Your task to perform on an android device: turn off location history Image 0: 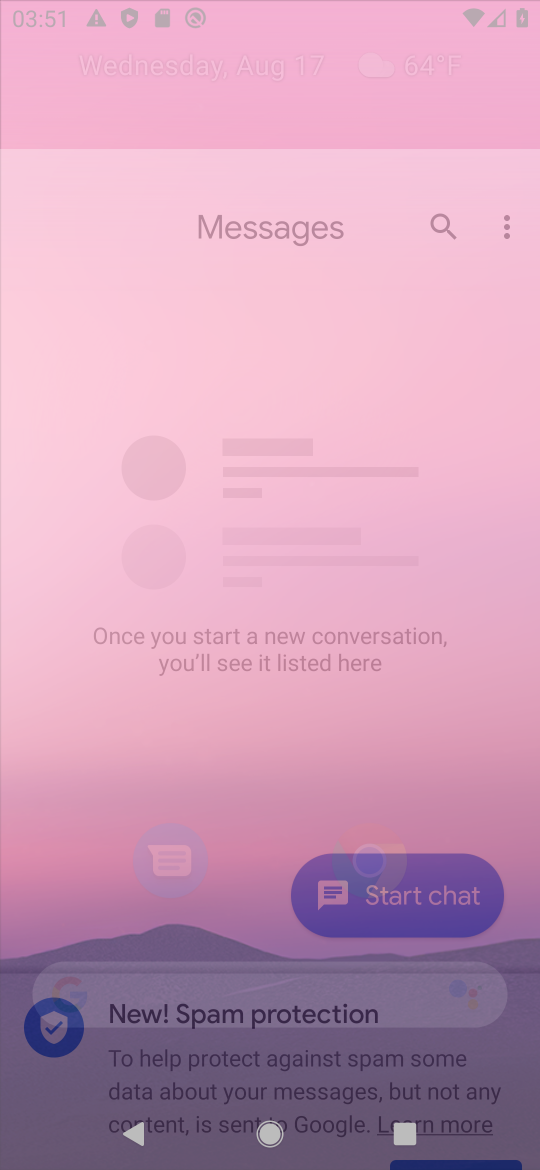
Step 0: press home button
Your task to perform on an android device: turn off location history Image 1: 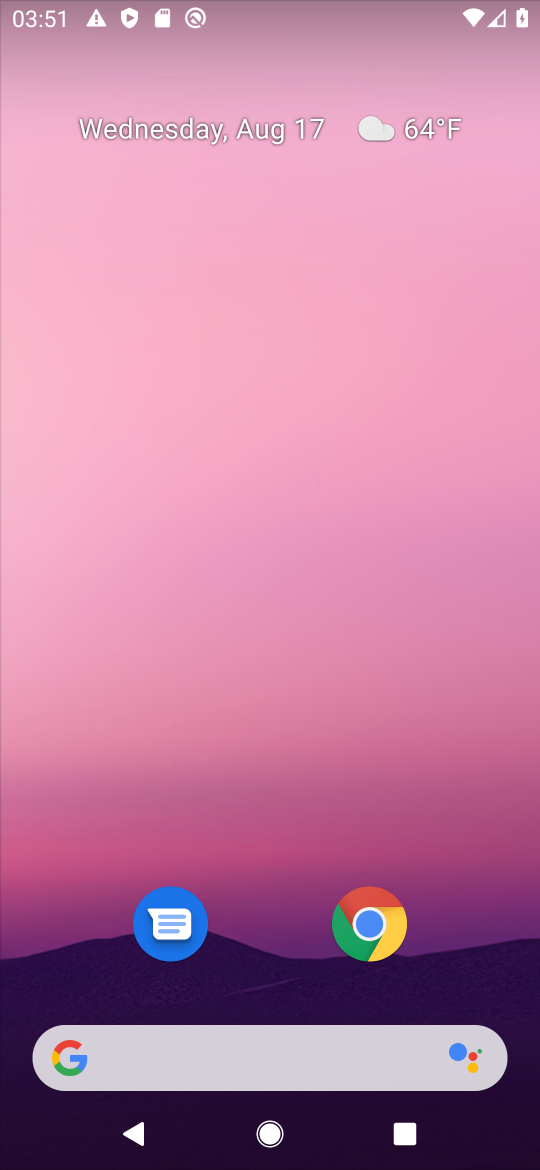
Step 1: drag from (249, 969) to (177, 131)
Your task to perform on an android device: turn off location history Image 2: 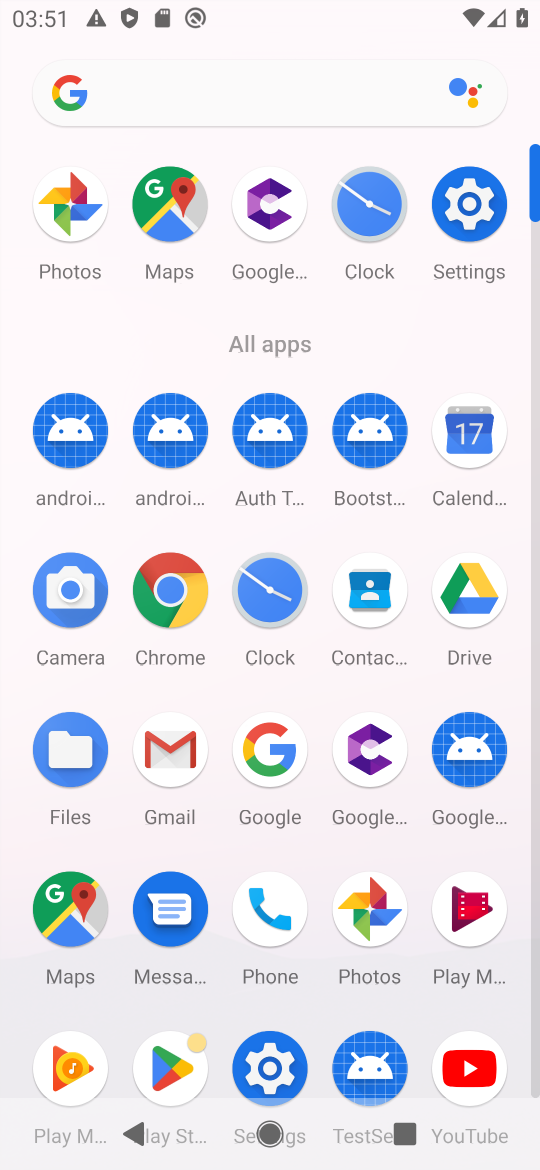
Step 2: click (254, 1050)
Your task to perform on an android device: turn off location history Image 3: 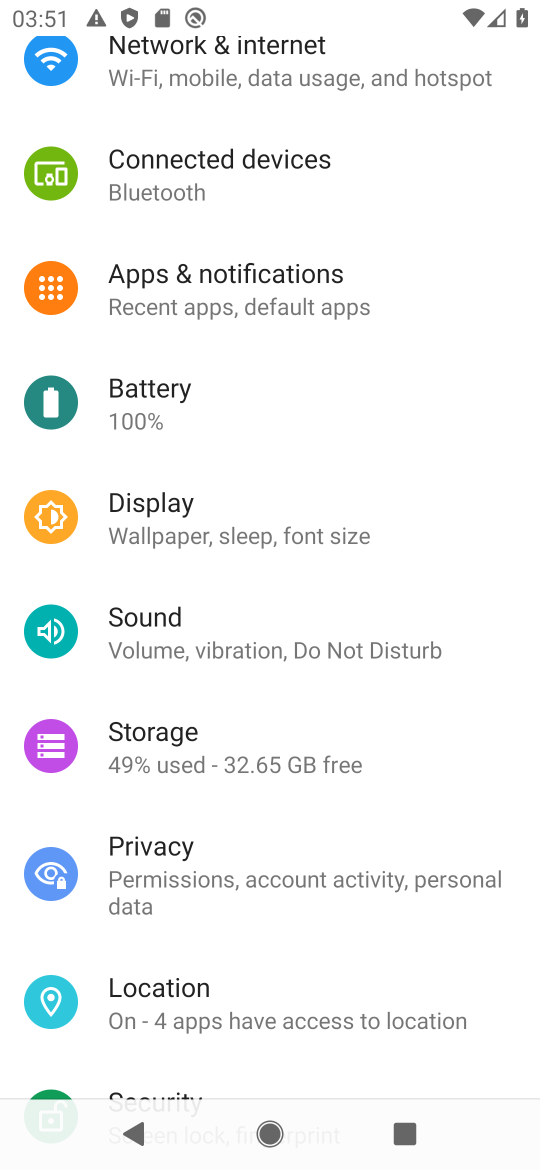
Step 3: click (160, 1003)
Your task to perform on an android device: turn off location history Image 4: 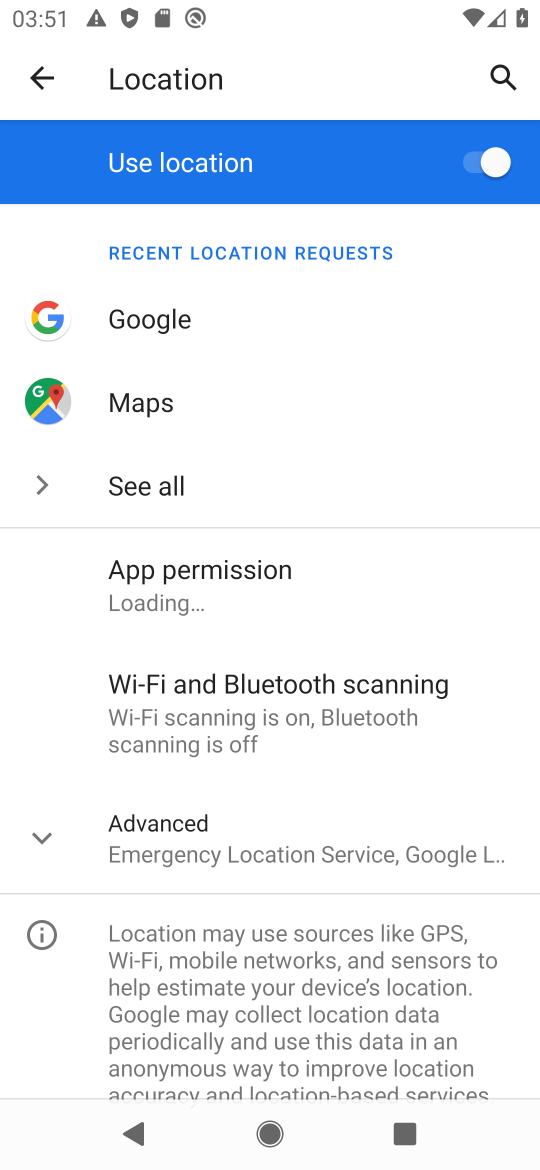
Step 4: click (192, 869)
Your task to perform on an android device: turn off location history Image 5: 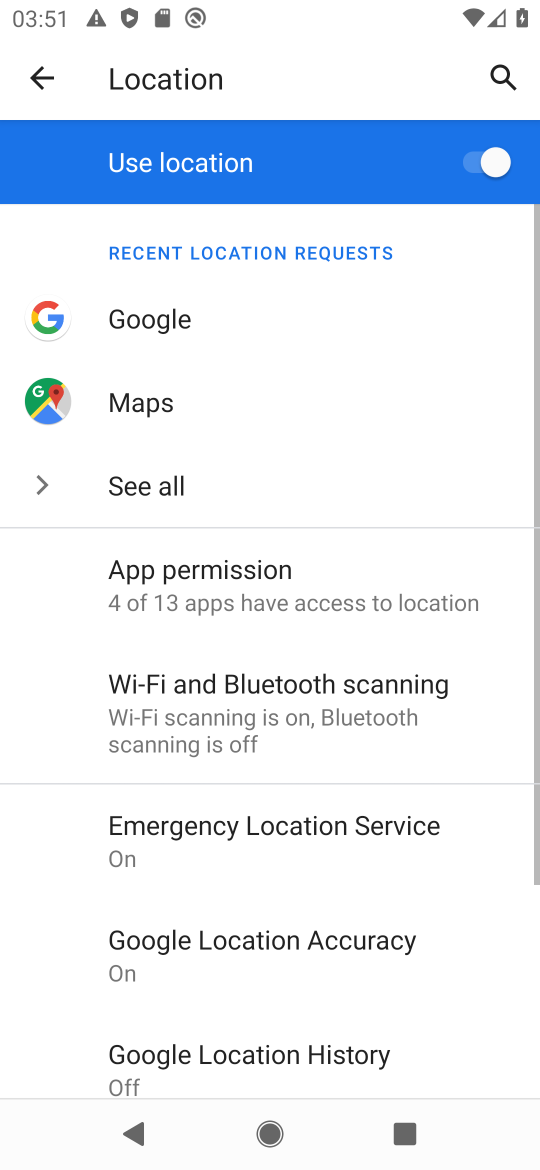
Step 5: click (219, 1057)
Your task to perform on an android device: turn off location history Image 6: 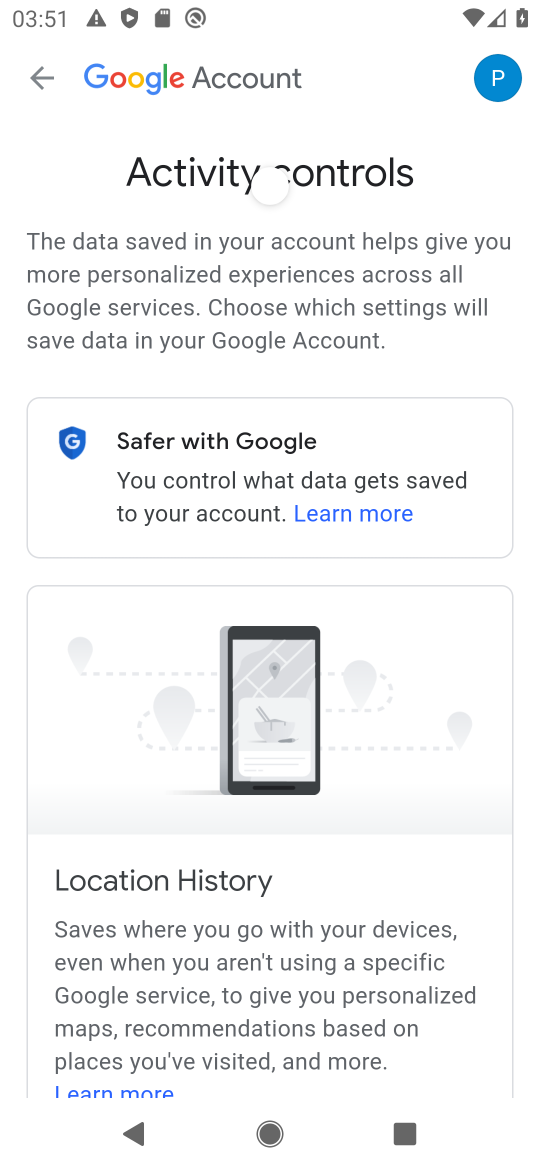
Step 6: task complete